Your task to perform on an android device: turn on wifi Image 0: 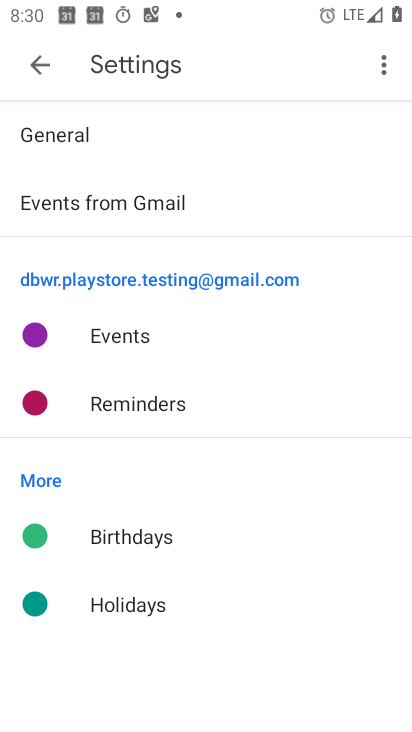
Step 0: press home button
Your task to perform on an android device: turn on wifi Image 1: 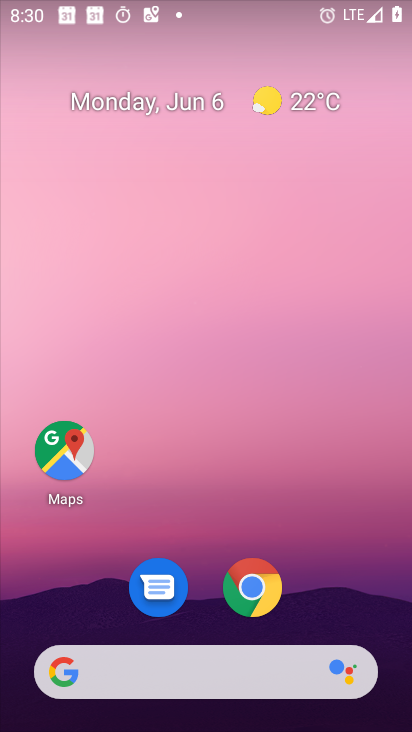
Step 1: drag from (180, 645) to (180, 247)
Your task to perform on an android device: turn on wifi Image 2: 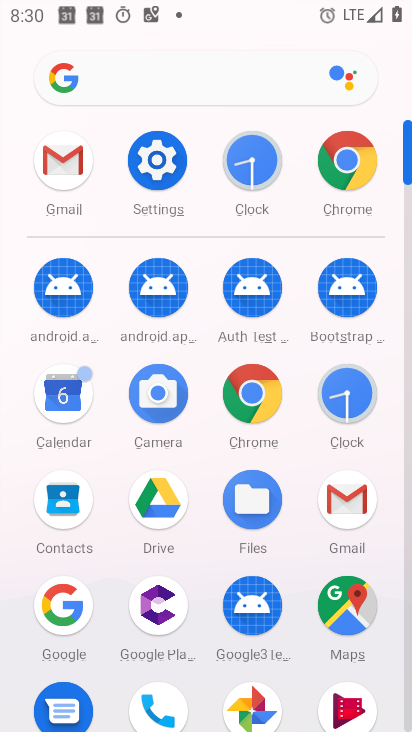
Step 2: click (153, 164)
Your task to perform on an android device: turn on wifi Image 3: 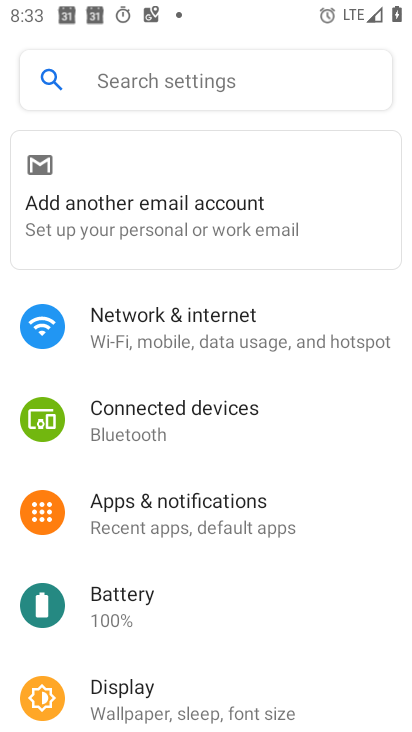
Step 3: click (162, 332)
Your task to perform on an android device: turn on wifi Image 4: 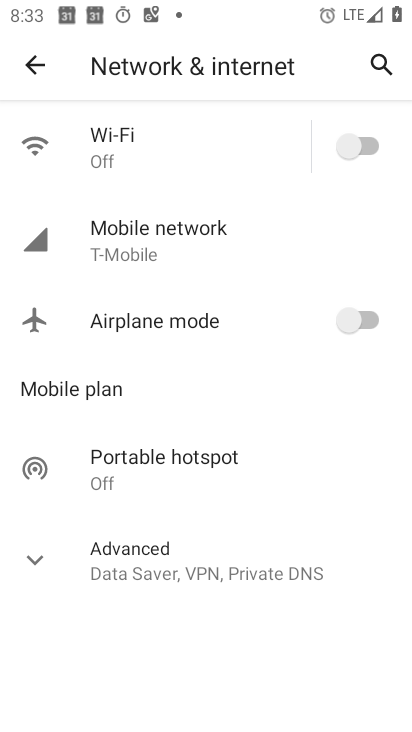
Step 4: click (374, 148)
Your task to perform on an android device: turn on wifi Image 5: 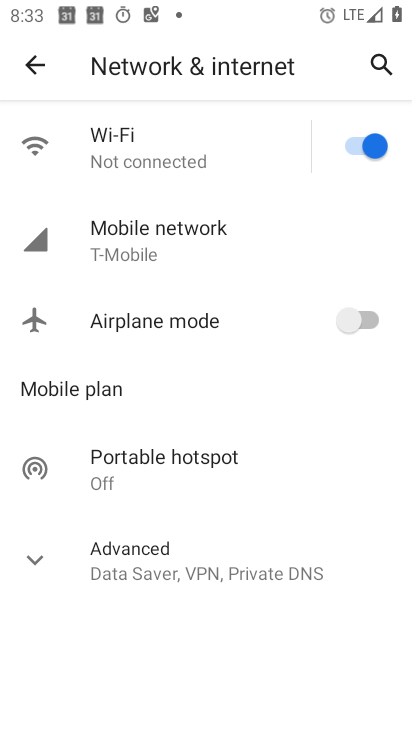
Step 5: task complete